Your task to perform on an android device: What's the weather like in Seoul? Image 0: 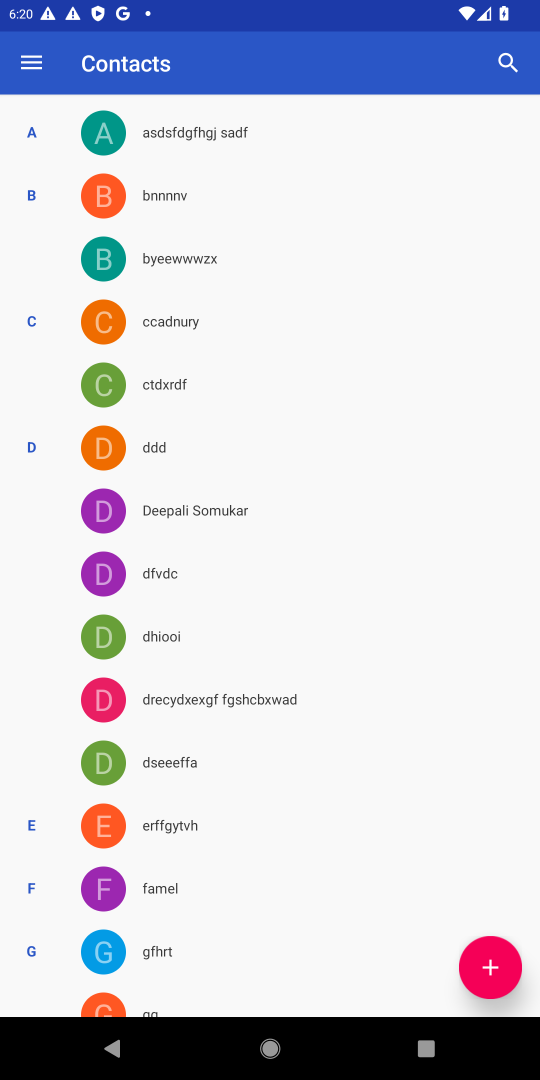
Step 0: press home button
Your task to perform on an android device: What's the weather like in Seoul? Image 1: 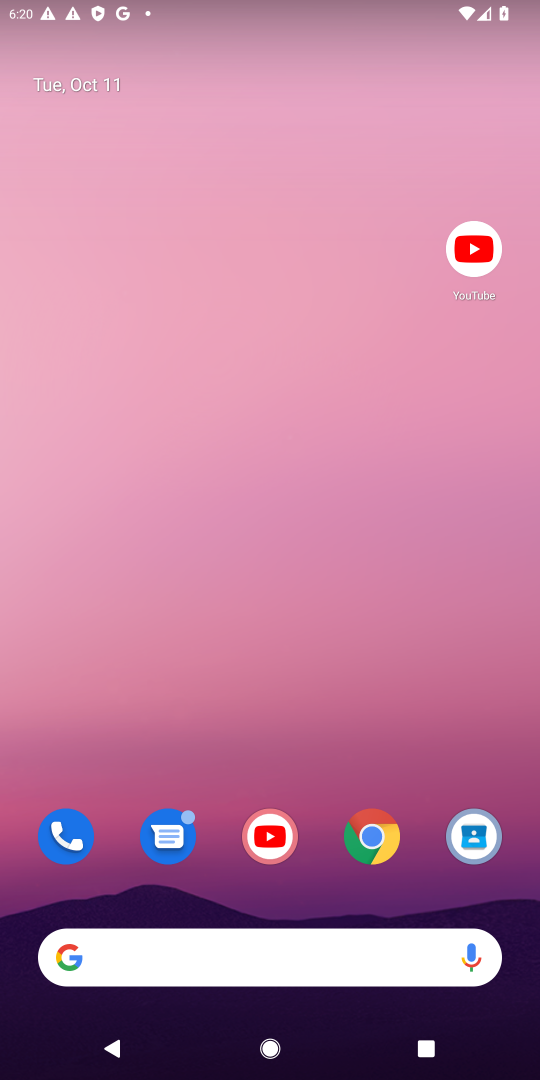
Step 1: click (371, 843)
Your task to perform on an android device: What's the weather like in Seoul? Image 2: 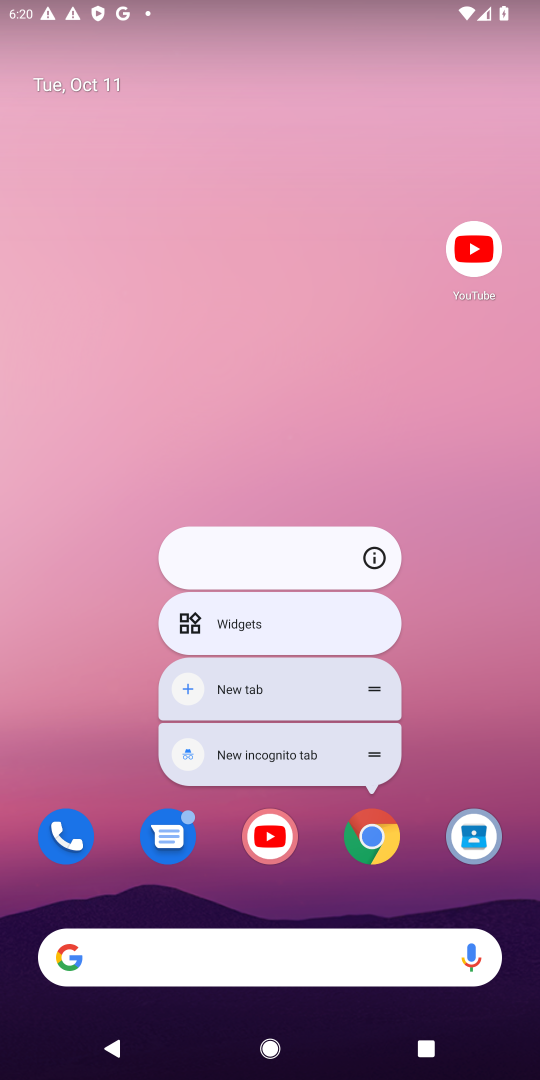
Step 2: click (376, 837)
Your task to perform on an android device: What's the weather like in Seoul? Image 3: 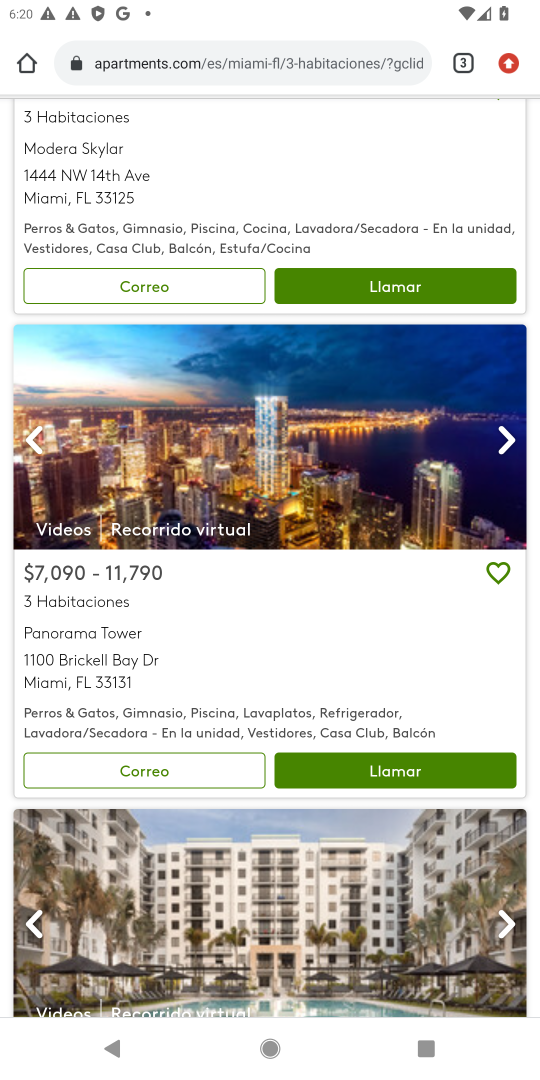
Step 3: click (335, 63)
Your task to perform on an android device: What's the weather like in Seoul? Image 4: 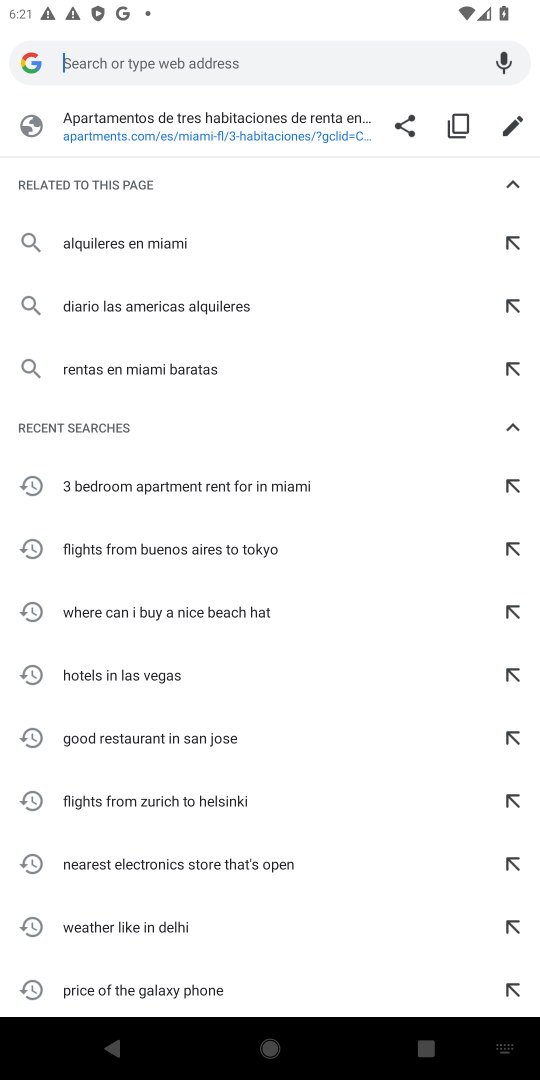
Step 4: type "weather like in Seoul"
Your task to perform on an android device: What's the weather like in Seoul? Image 5: 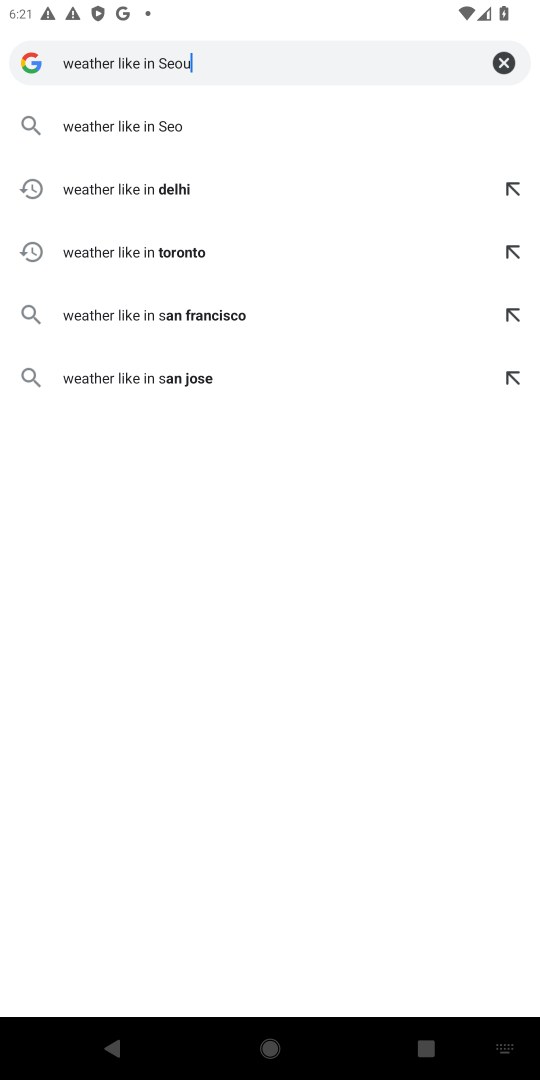
Step 5: press enter
Your task to perform on an android device: What's the weather like in Seoul? Image 6: 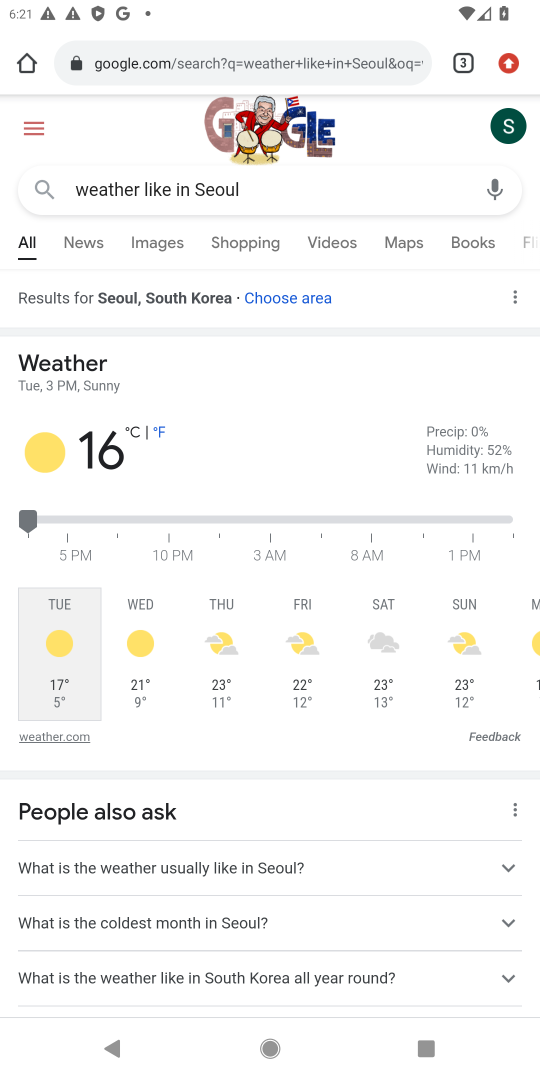
Step 6: task complete